Your task to perform on an android device: Open the Play Movies app and select the watchlist tab. Image 0: 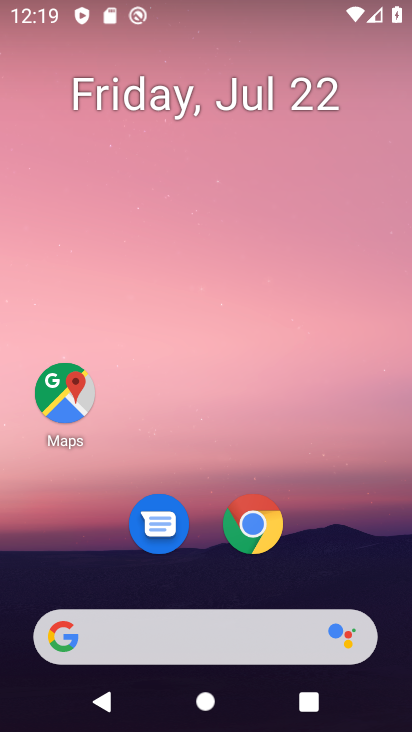
Step 0: press home button
Your task to perform on an android device: Open the Play Movies app and select the watchlist tab. Image 1: 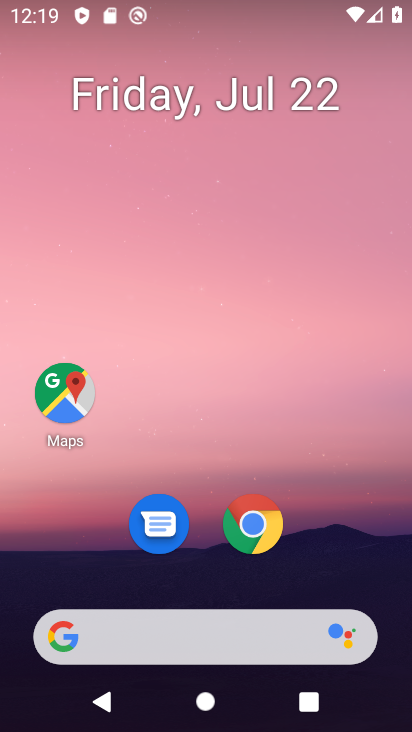
Step 1: drag from (174, 641) to (325, 169)
Your task to perform on an android device: Open the Play Movies app and select the watchlist tab. Image 2: 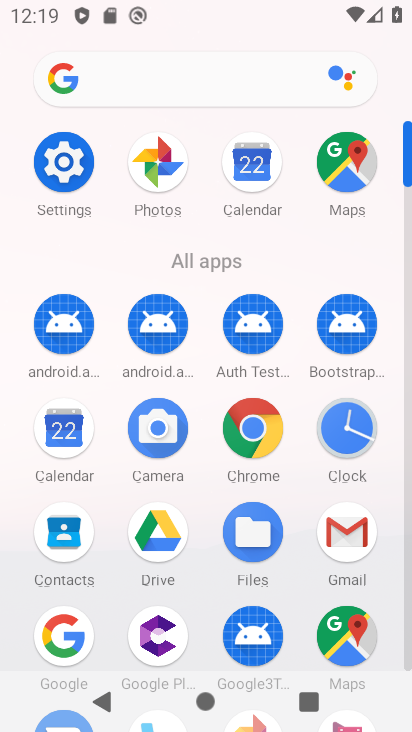
Step 2: drag from (303, 525) to (374, 230)
Your task to perform on an android device: Open the Play Movies app and select the watchlist tab. Image 3: 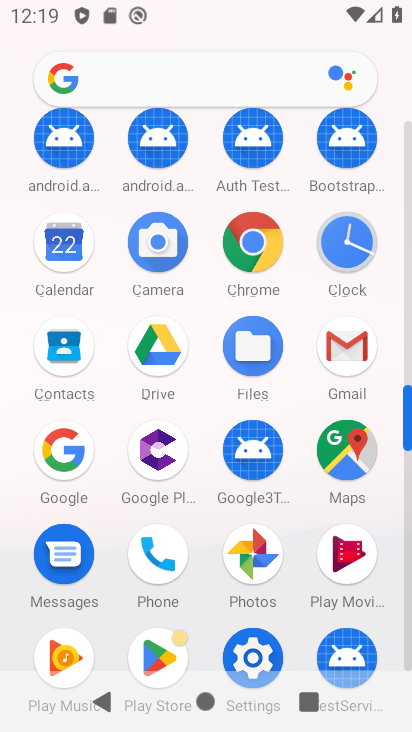
Step 3: click (335, 554)
Your task to perform on an android device: Open the Play Movies app and select the watchlist tab. Image 4: 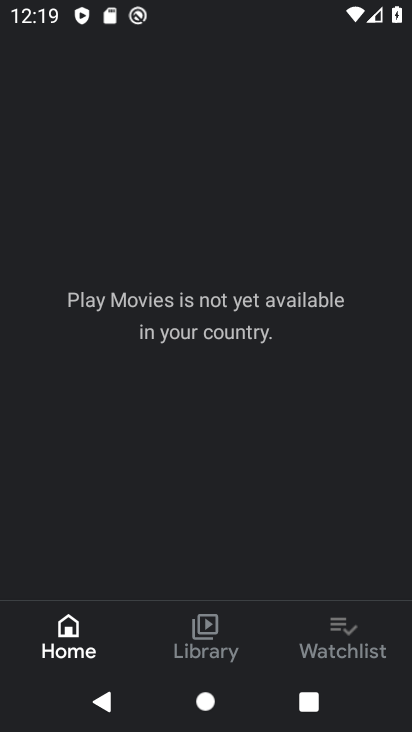
Step 4: click (337, 645)
Your task to perform on an android device: Open the Play Movies app and select the watchlist tab. Image 5: 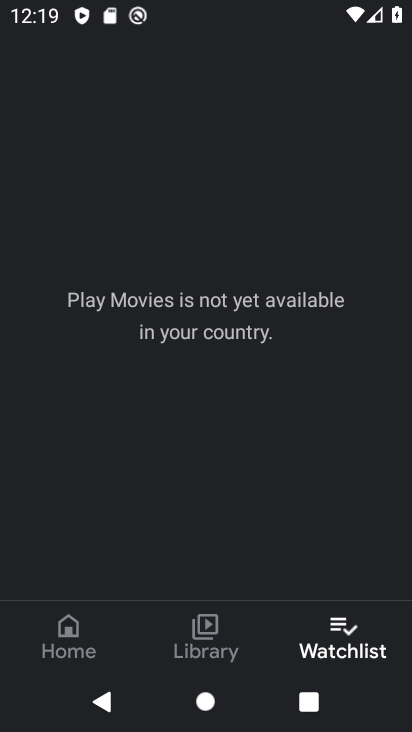
Step 5: task complete